Your task to perform on an android device: check out phone information Image 0: 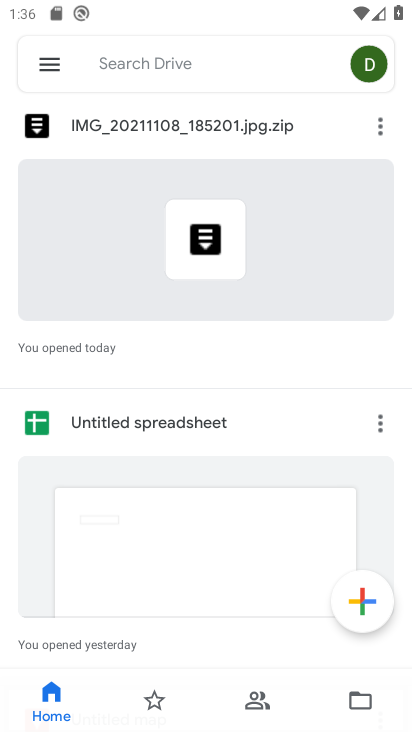
Step 0: press home button
Your task to perform on an android device: check out phone information Image 1: 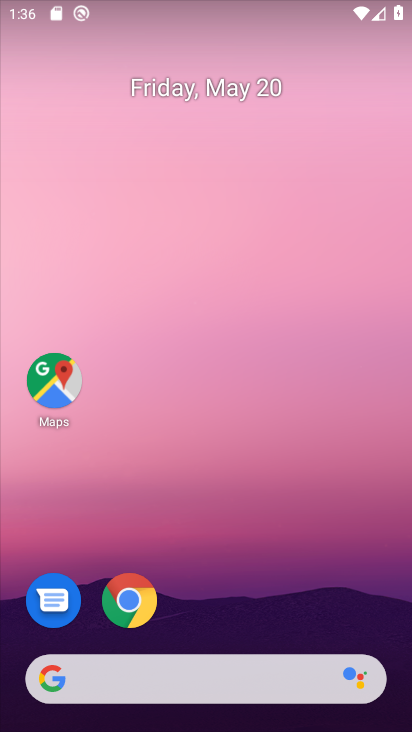
Step 1: drag from (244, 300) to (226, 4)
Your task to perform on an android device: check out phone information Image 2: 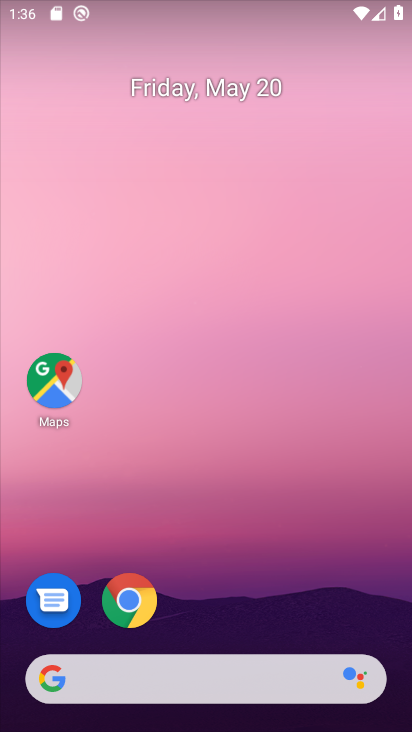
Step 2: drag from (225, 624) to (331, 14)
Your task to perform on an android device: check out phone information Image 3: 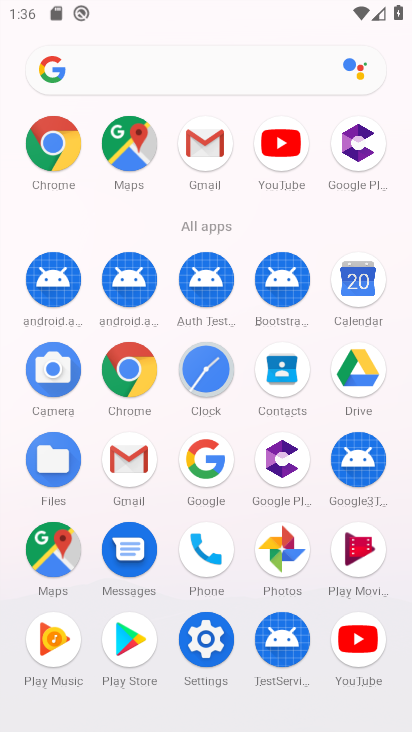
Step 3: click (203, 662)
Your task to perform on an android device: check out phone information Image 4: 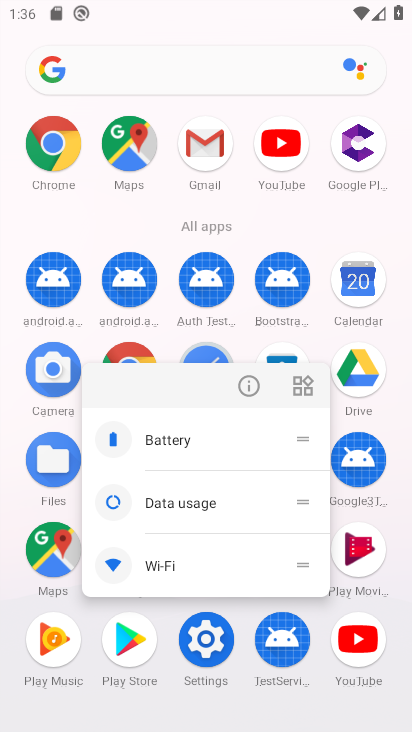
Step 4: click (194, 578)
Your task to perform on an android device: check out phone information Image 5: 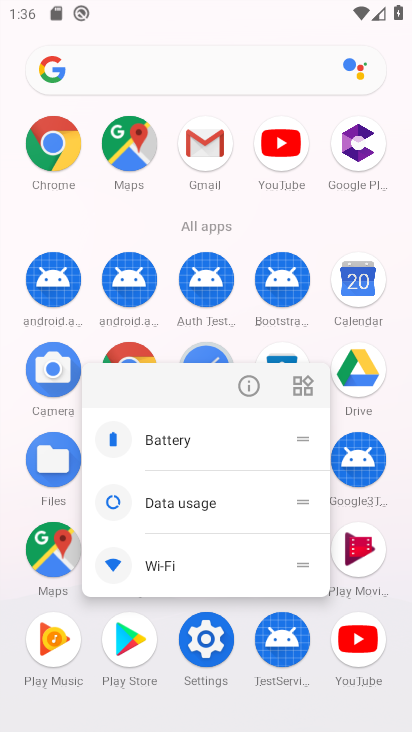
Step 5: click (219, 639)
Your task to perform on an android device: check out phone information Image 6: 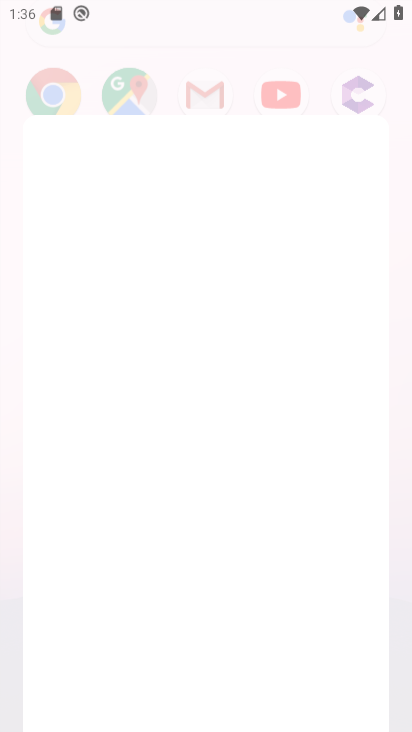
Step 6: click (214, 645)
Your task to perform on an android device: check out phone information Image 7: 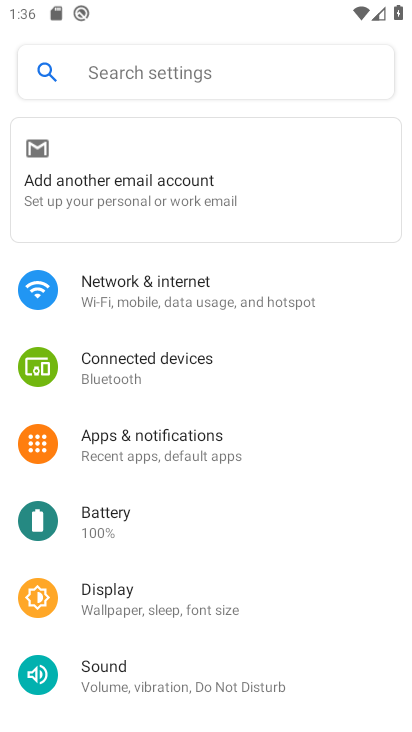
Step 7: drag from (225, 508) to (243, 0)
Your task to perform on an android device: check out phone information Image 8: 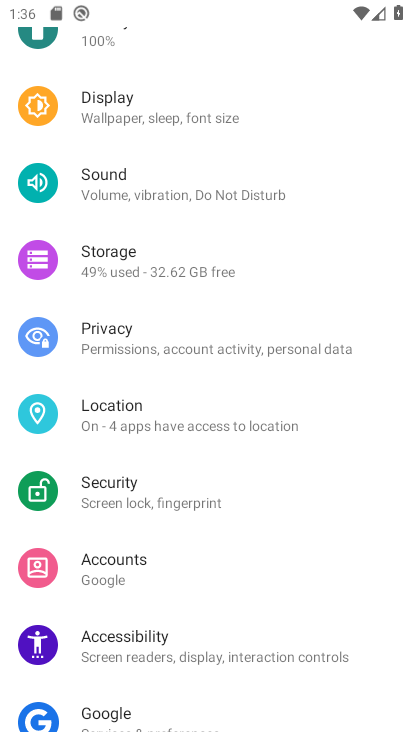
Step 8: drag from (201, 582) to (272, 78)
Your task to perform on an android device: check out phone information Image 9: 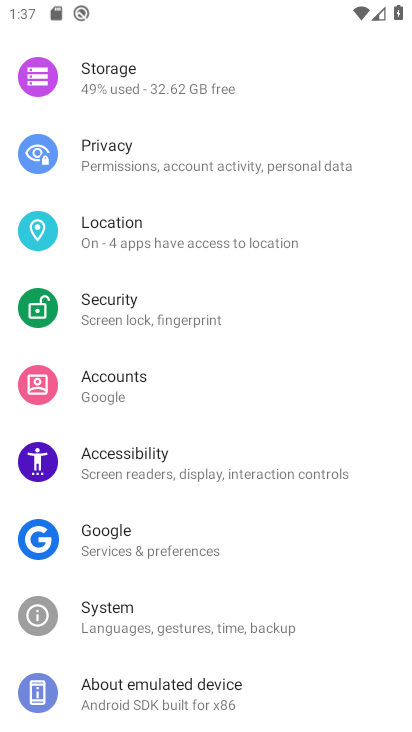
Step 9: click (137, 689)
Your task to perform on an android device: check out phone information Image 10: 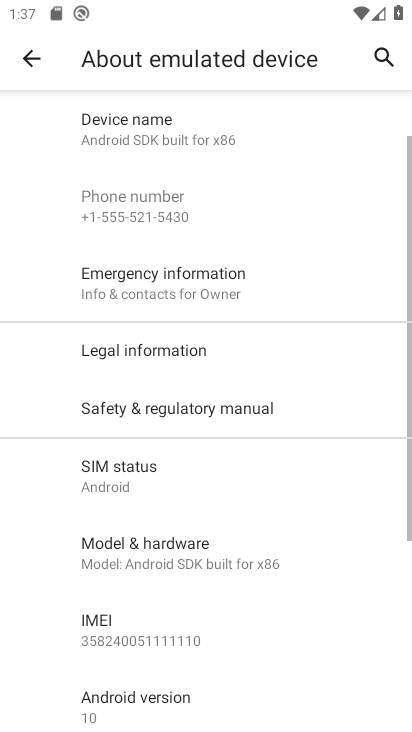
Step 10: task complete